Your task to perform on an android device: turn off translation in the chrome app Image 0: 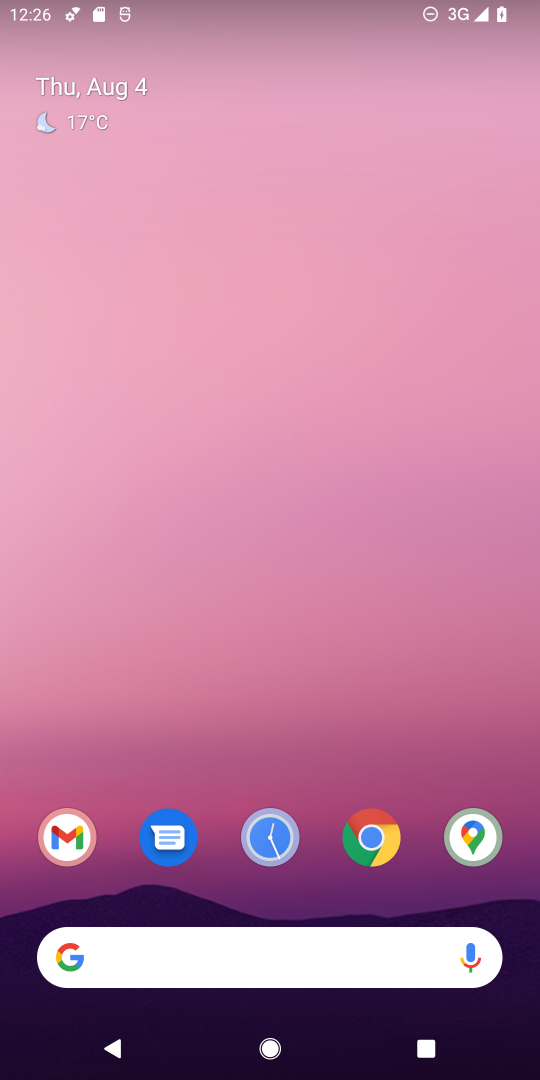
Step 0: drag from (443, 877) to (238, 57)
Your task to perform on an android device: turn off translation in the chrome app Image 1: 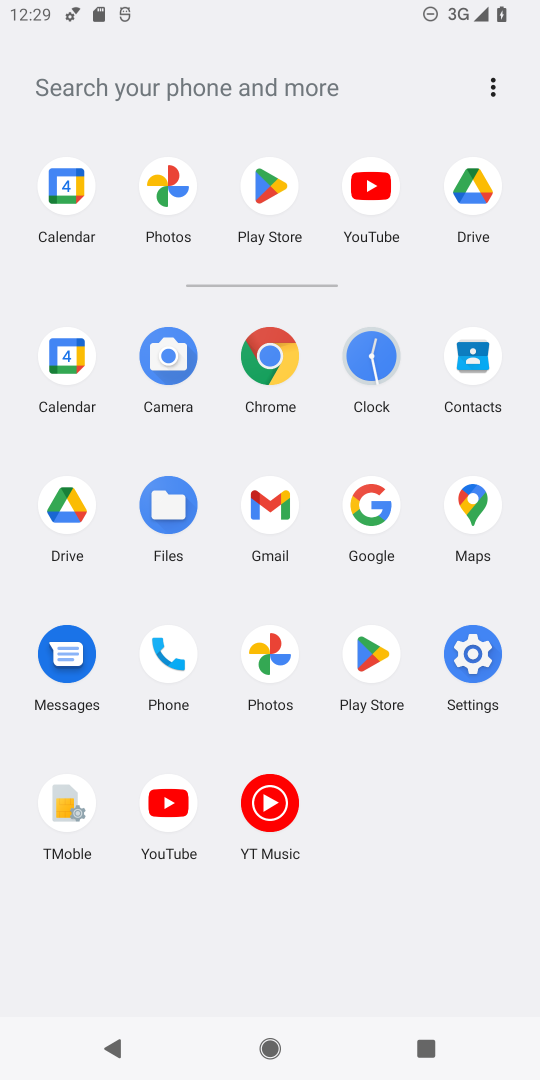
Step 1: click (265, 352)
Your task to perform on an android device: turn off translation in the chrome app Image 2: 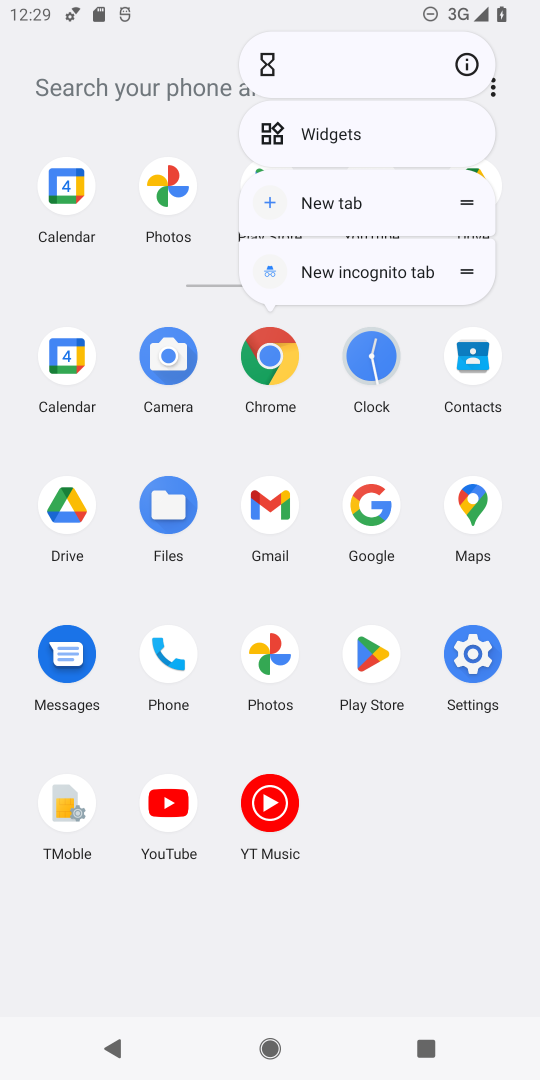
Step 2: click (265, 352)
Your task to perform on an android device: turn off translation in the chrome app Image 3: 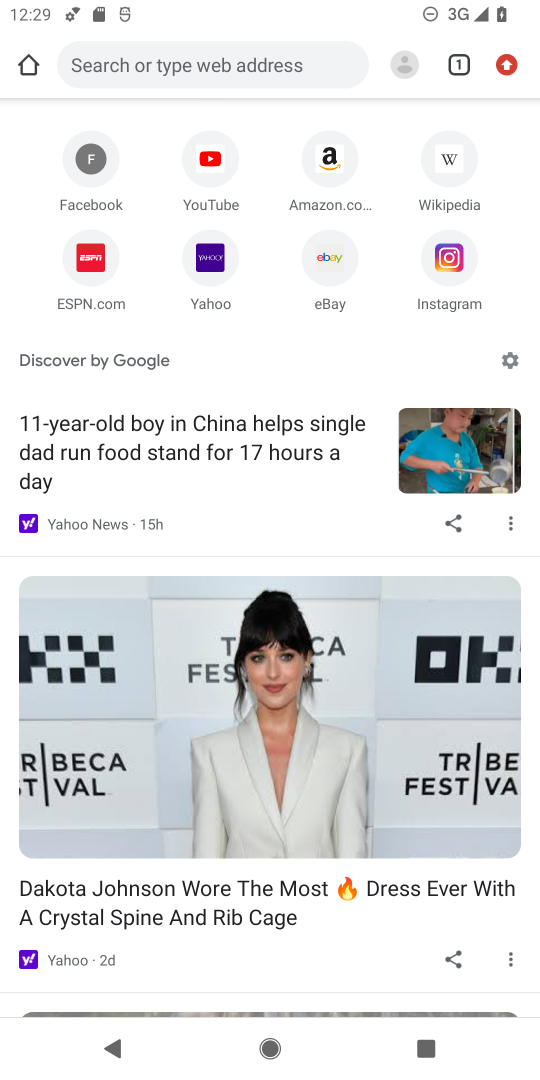
Step 3: click (512, 58)
Your task to perform on an android device: turn off translation in the chrome app Image 4: 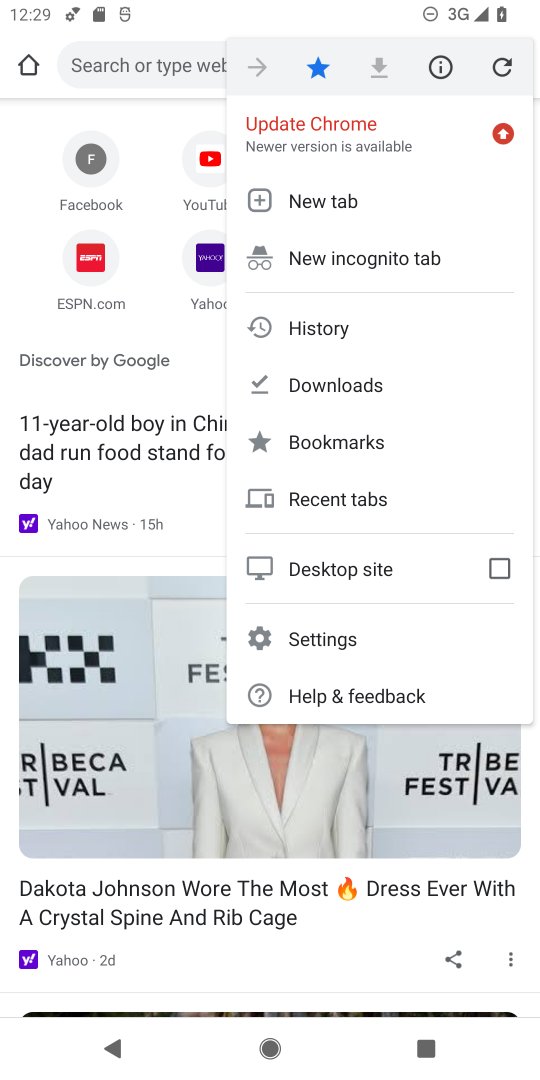
Step 4: click (306, 635)
Your task to perform on an android device: turn off translation in the chrome app Image 5: 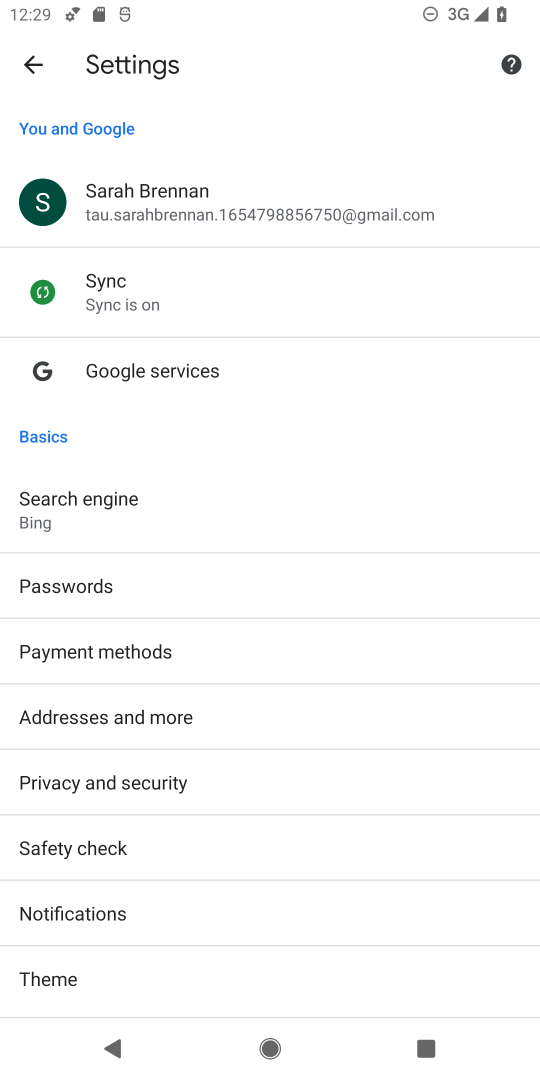
Step 5: drag from (105, 969) to (121, 266)
Your task to perform on an android device: turn off translation in the chrome app Image 6: 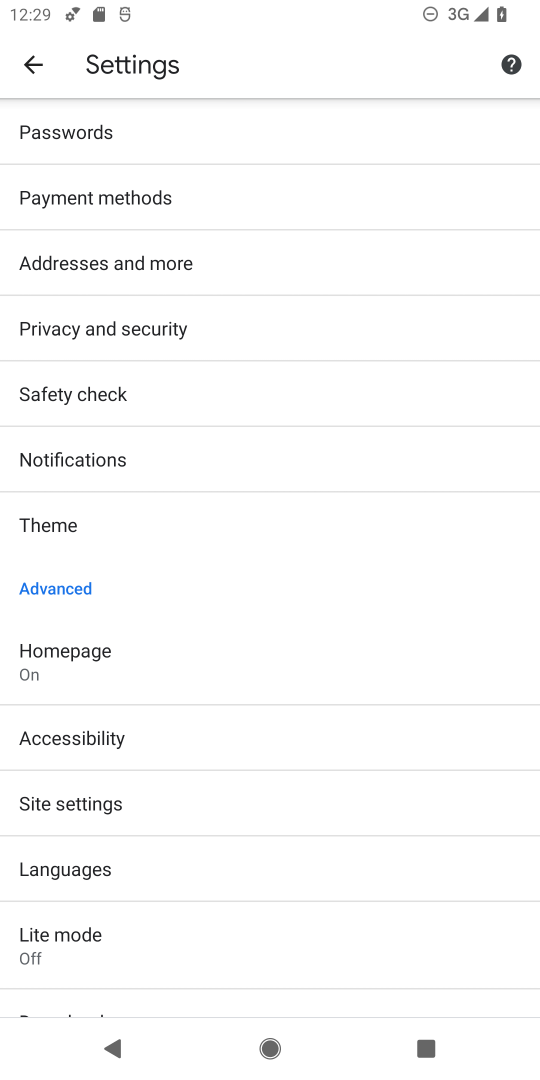
Step 6: click (92, 854)
Your task to perform on an android device: turn off translation in the chrome app Image 7: 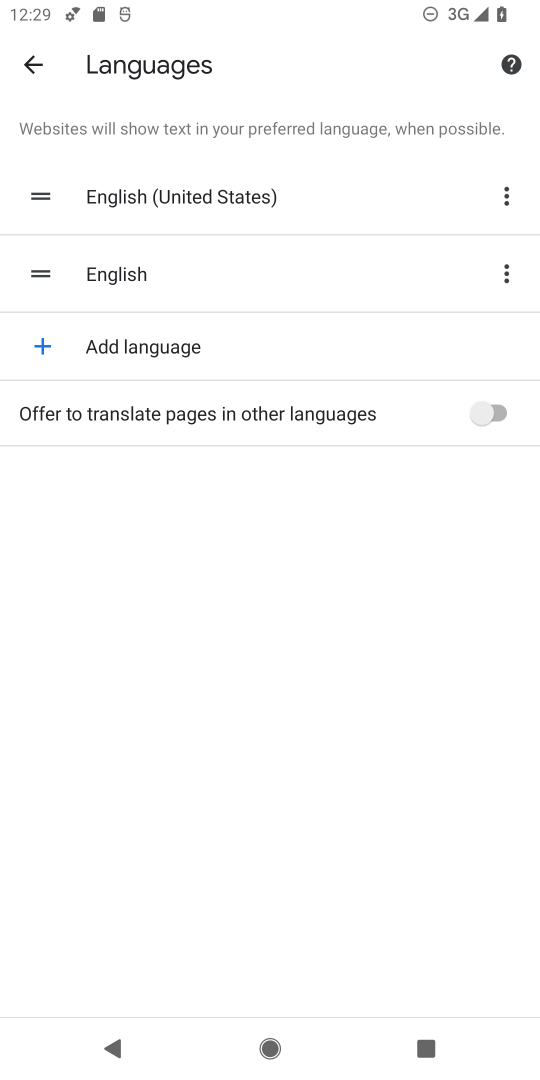
Step 7: task complete